Your task to perform on an android device: Play the new Ed Sheeran video on YouTube Image 0: 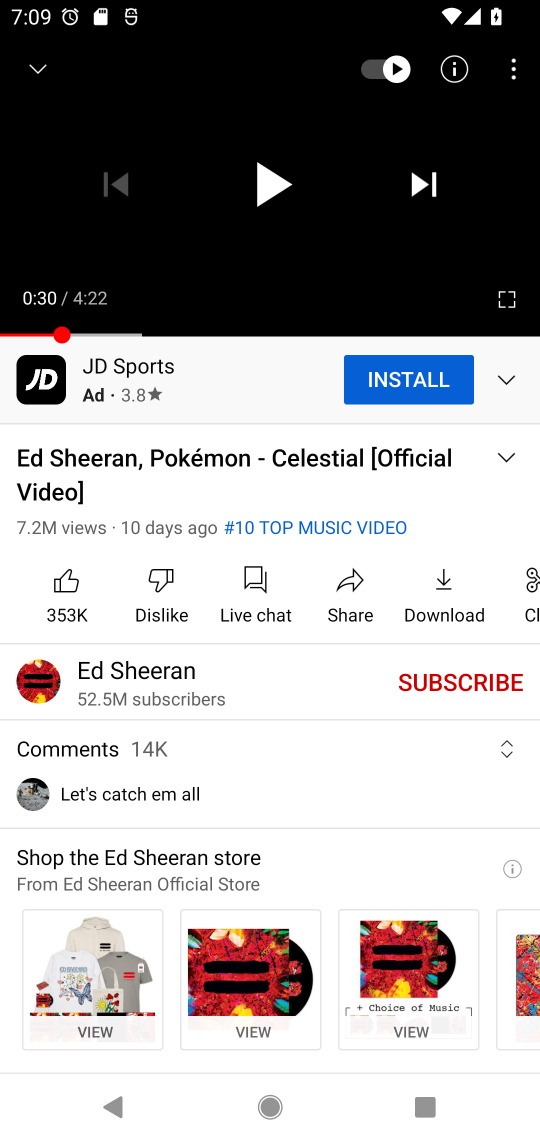
Step 0: click (271, 202)
Your task to perform on an android device: Play the new Ed Sheeran video on YouTube Image 1: 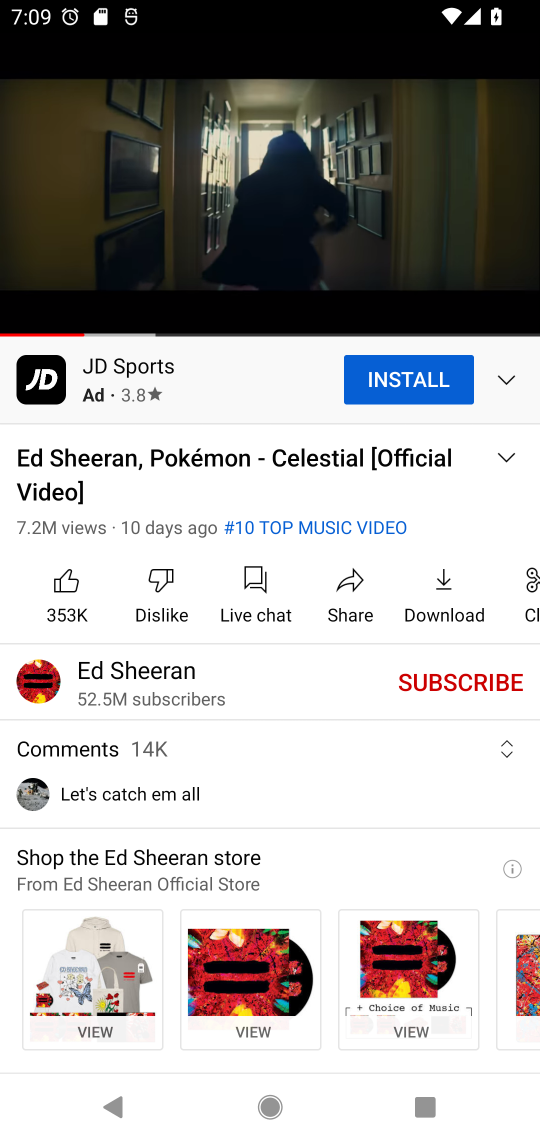
Step 1: task complete